Your task to perform on an android device: Turn on the flashlight Image 0: 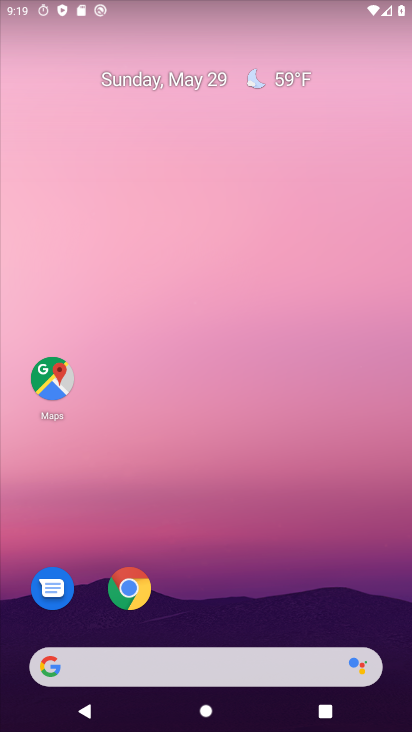
Step 0: drag from (252, 613) to (198, 11)
Your task to perform on an android device: Turn on the flashlight Image 1: 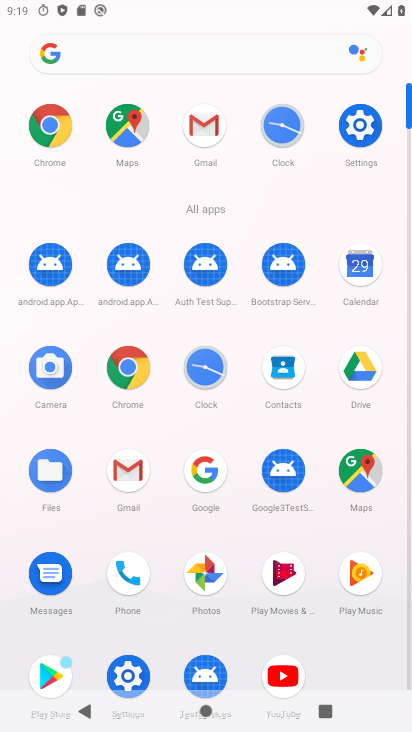
Step 1: click (362, 122)
Your task to perform on an android device: Turn on the flashlight Image 2: 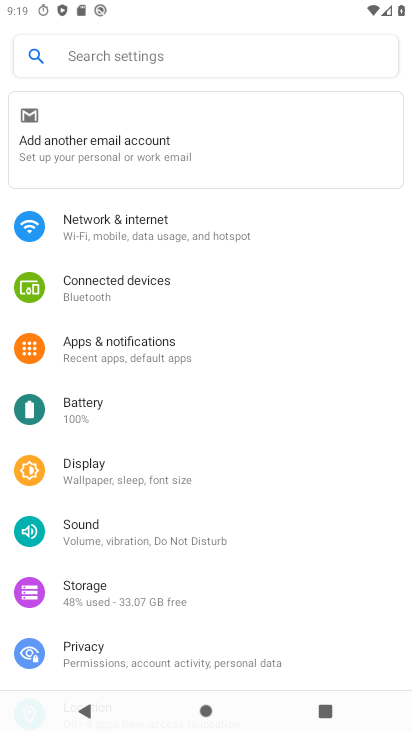
Step 2: click (157, 56)
Your task to perform on an android device: Turn on the flashlight Image 3: 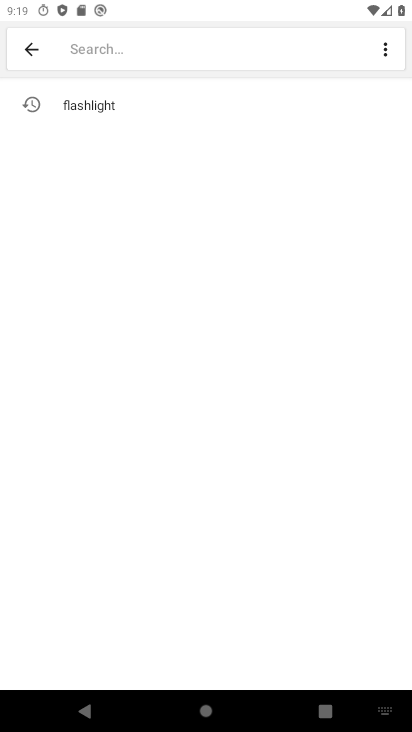
Step 3: type "flashlight"
Your task to perform on an android device: Turn on the flashlight Image 4: 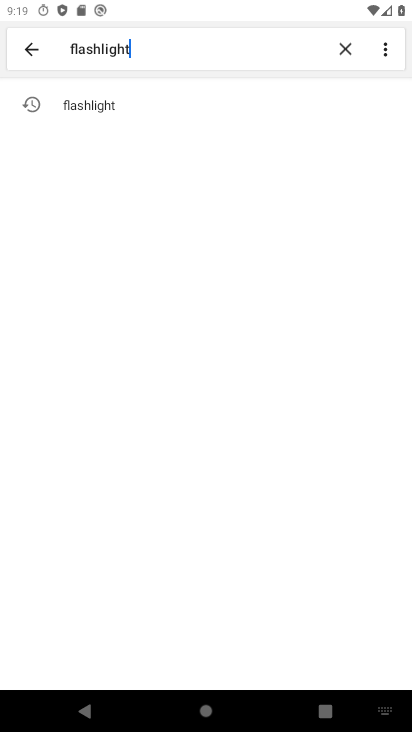
Step 4: click (113, 118)
Your task to perform on an android device: Turn on the flashlight Image 5: 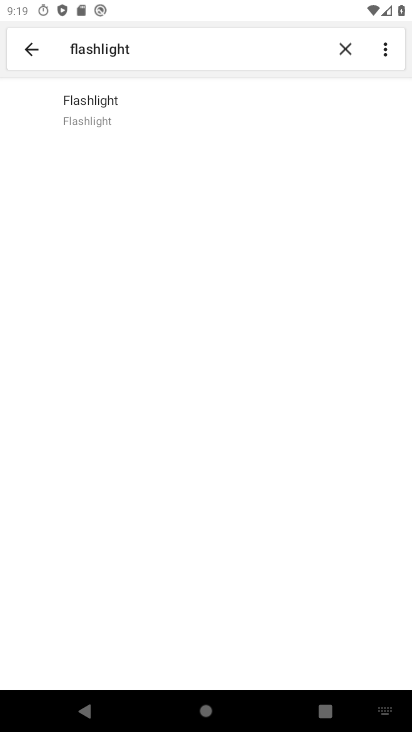
Step 5: click (117, 111)
Your task to perform on an android device: Turn on the flashlight Image 6: 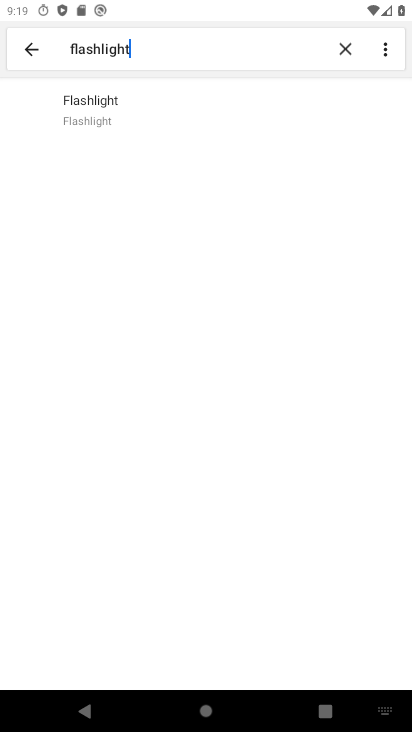
Step 6: task complete